Your task to perform on an android device: move an email to a new category in the gmail app Image 0: 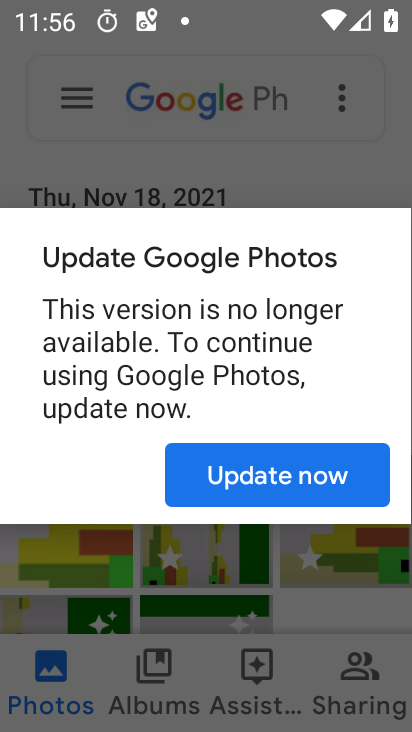
Step 0: press home button
Your task to perform on an android device: move an email to a new category in the gmail app Image 1: 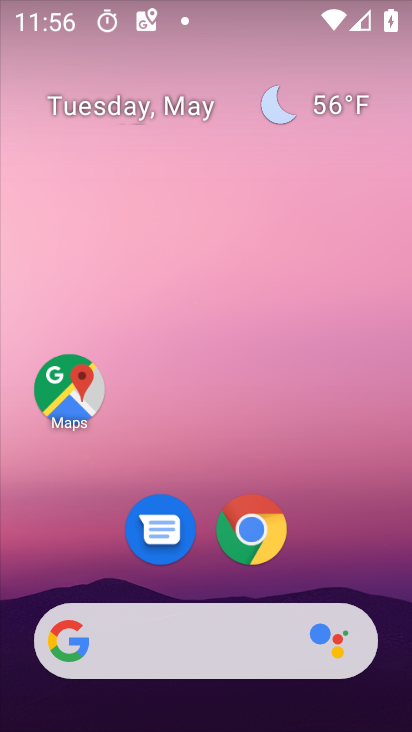
Step 1: drag from (193, 586) to (226, 83)
Your task to perform on an android device: move an email to a new category in the gmail app Image 2: 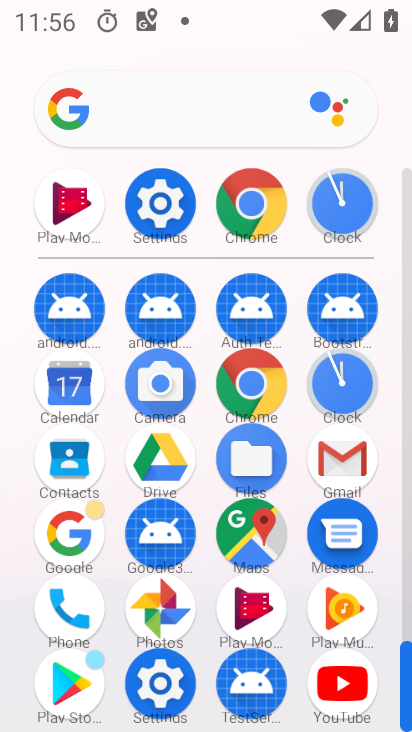
Step 2: click (353, 439)
Your task to perform on an android device: move an email to a new category in the gmail app Image 3: 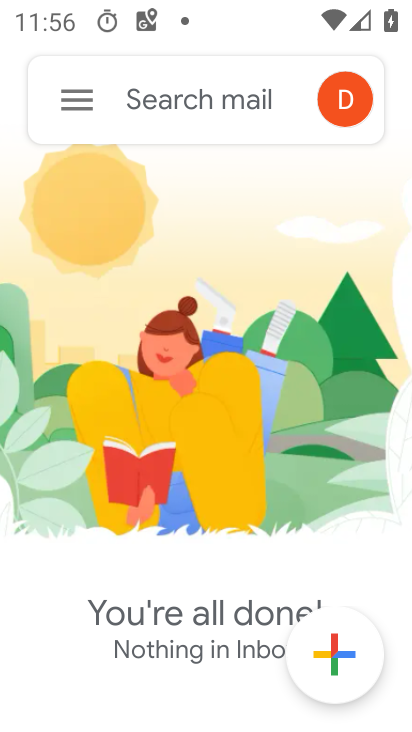
Step 3: task complete